Your task to perform on an android device: stop showing notifications on the lock screen Image 0: 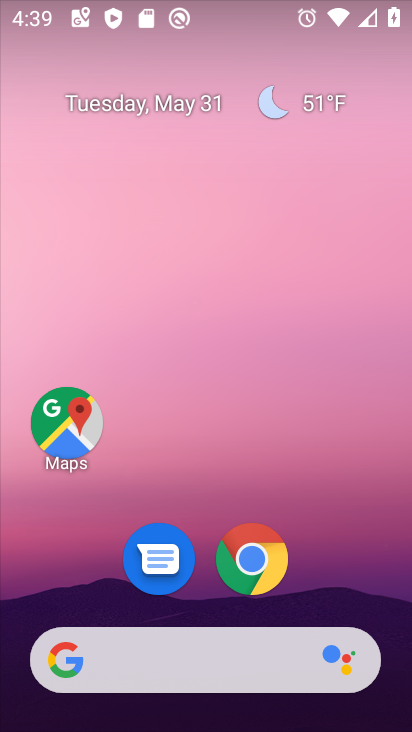
Step 0: drag from (365, 564) to (360, 4)
Your task to perform on an android device: stop showing notifications on the lock screen Image 1: 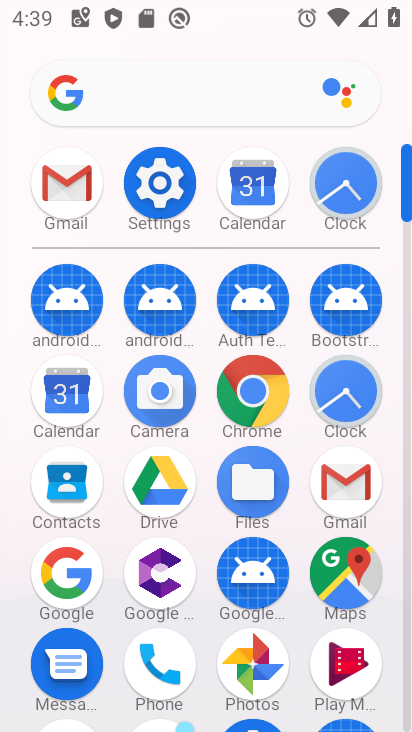
Step 1: click (161, 170)
Your task to perform on an android device: stop showing notifications on the lock screen Image 2: 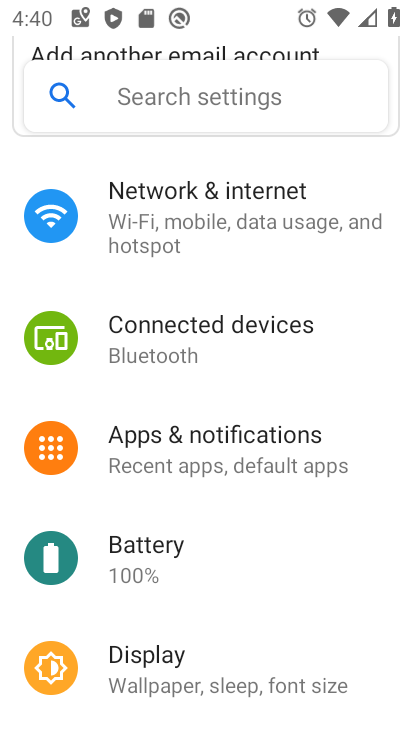
Step 2: click (143, 425)
Your task to perform on an android device: stop showing notifications on the lock screen Image 3: 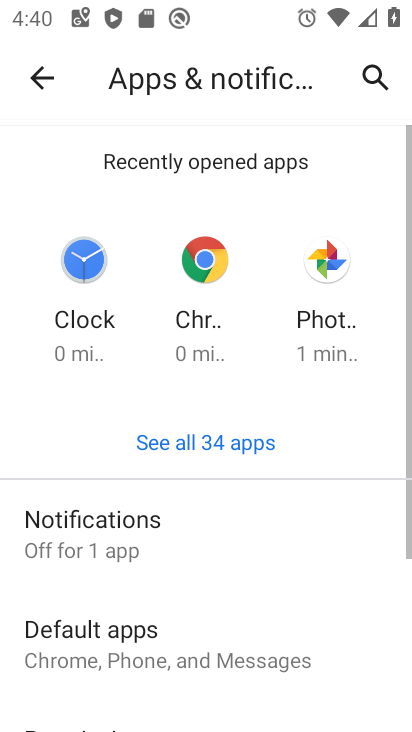
Step 3: click (74, 531)
Your task to perform on an android device: stop showing notifications on the lock screen Image 4: 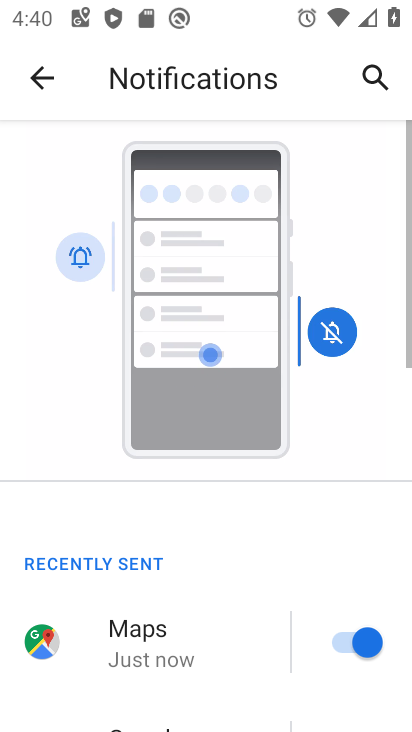
Step 4: drag from (168, 616) to (263, 75)
Your task to perform on an android device: stop showing notifications on the lock screen Image 5: 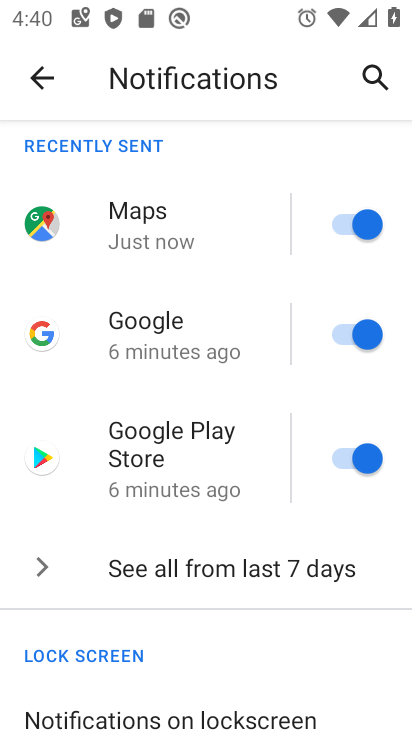
Step 5: click (176, 707)
Your task to perform on an android device: stop showing notifications on the lock screen Image 6: 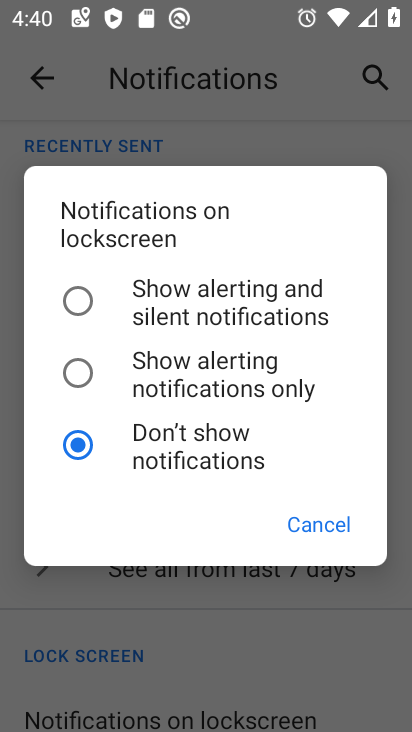
Step 6: click (191, 455)
Your task to perform on an android device: stop showing notifications on the lock screen Image 7: 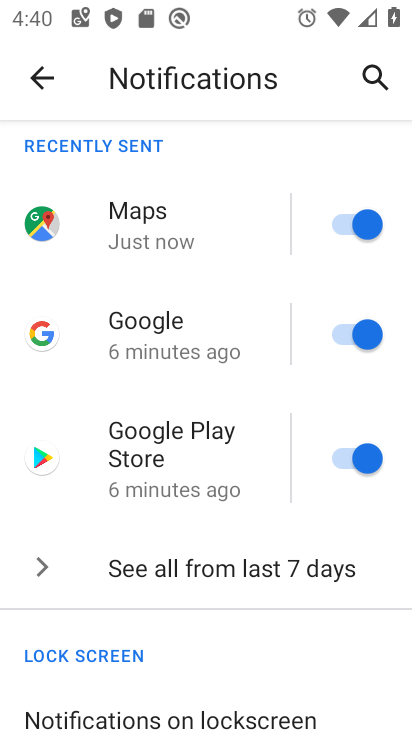
Step 7: task complete